Your task to perform on an android device: Open wifi settings Image 0: 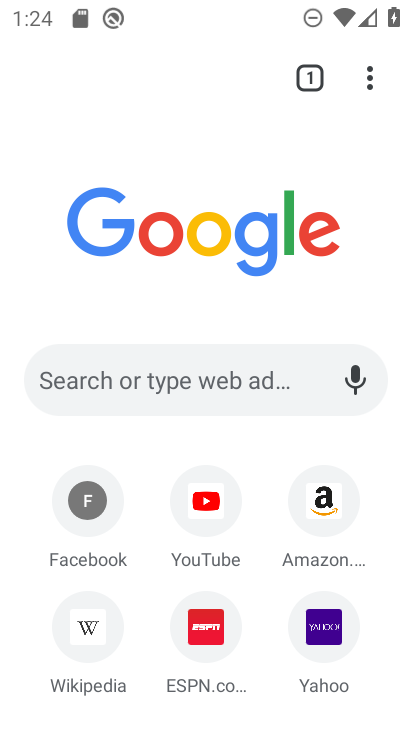
Step 0: press back button
Your task to perform on an android device: Open wifi settings Image 1: 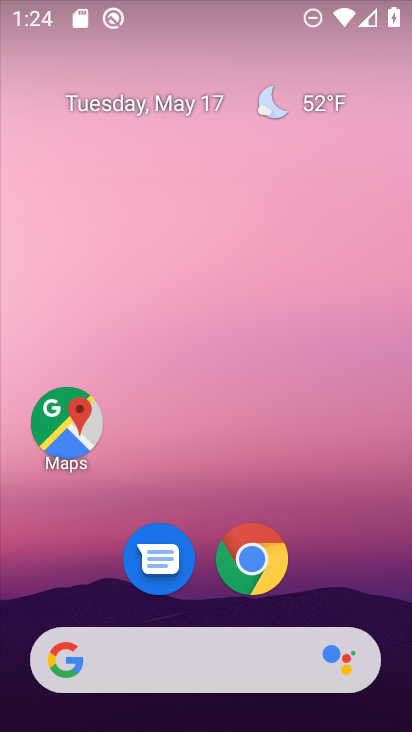
Step 1: drag from (331, 579) to (262, 168)
Your task to perform on an android device: Open wifi settings Image 2: 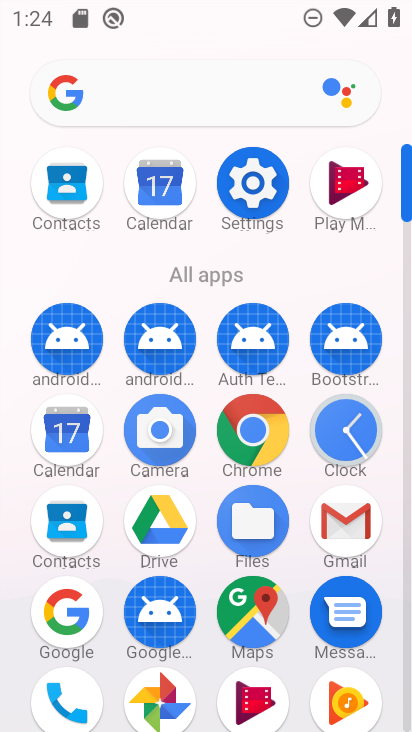
Step 2: click (253, 181)
Your task to perform on an android device: Open wifi settings Image 3: 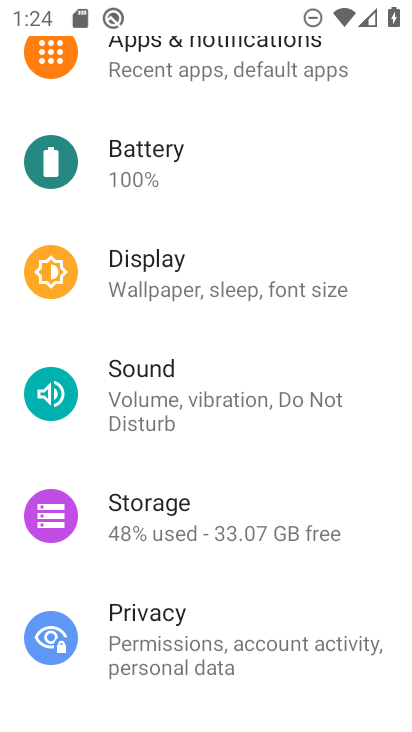
Step 3: drag from (208, 164) to (249, 261)
Your task to perform on an android device: Open wifi settings Image 4: 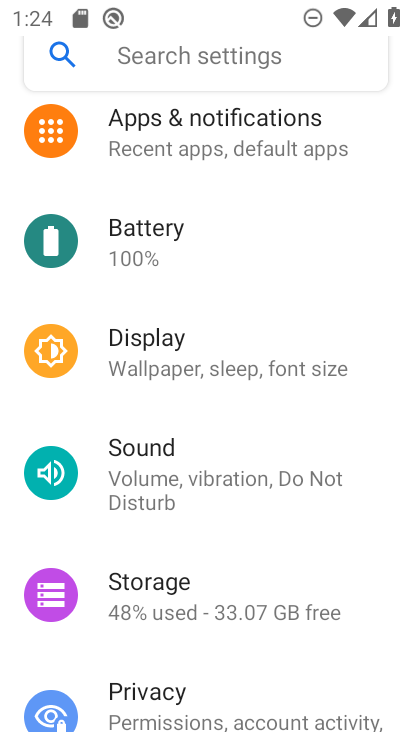
Step 4: drag from (243, 211) to (274, 350)
Your task to perform on an android device: Open wifi settings Image 5: 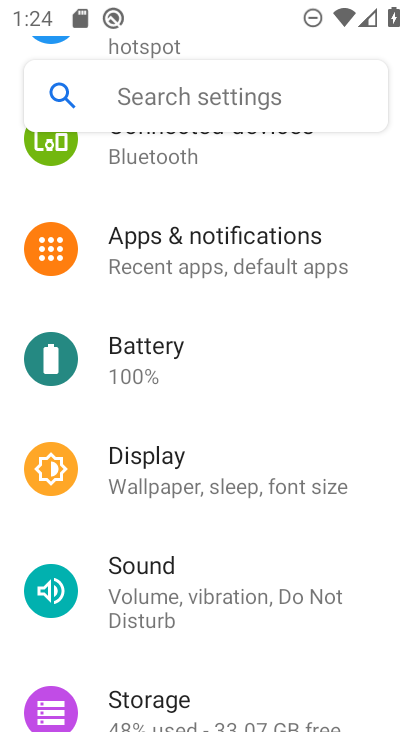
Step 5: drag from (262, 205) to (249, 380)
Your task to perform on an android device: Open wifi settings Image 6: 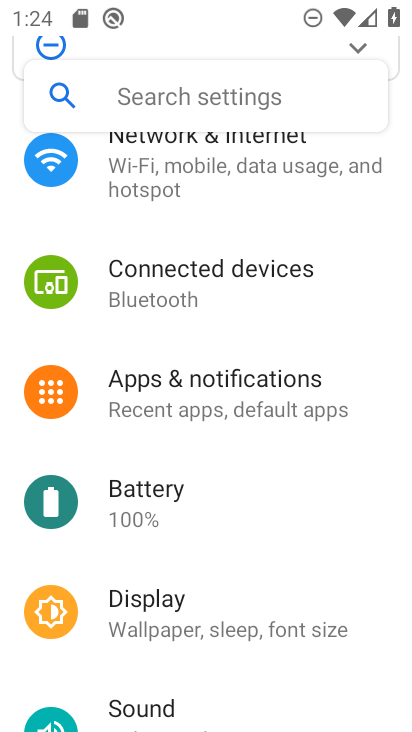
Step 6: drag from (237, 227) to (241, 388)
Your task to perform on an android device: Open wifi settings Image 7: 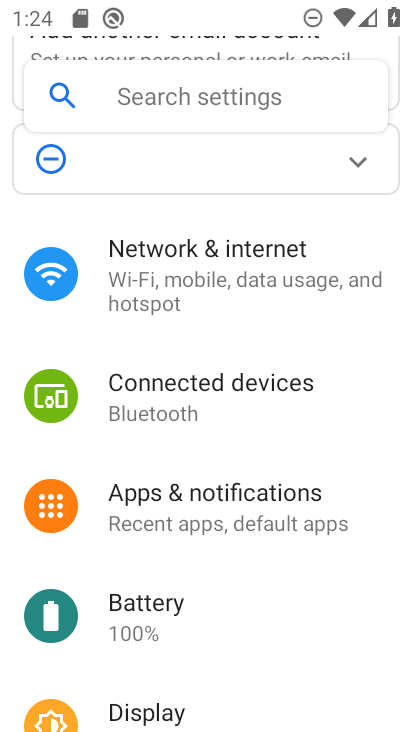
Step 7: click (218, 253)
Your task to perform on an android device: Open wifi settings Image 8: 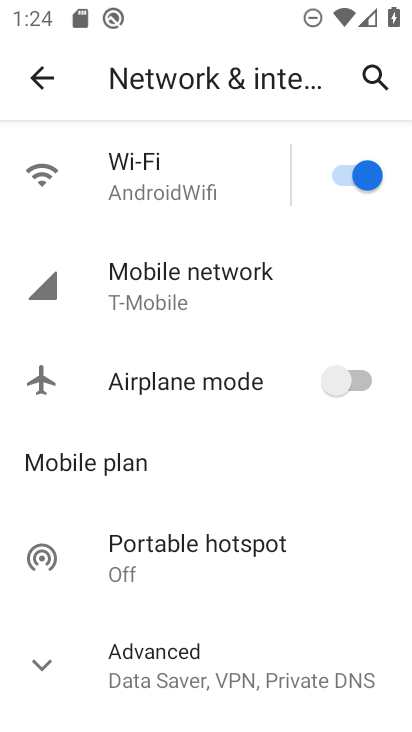
Step 8: click (134, 159)
Your task to perform on an android device: Open wifi settings Image 9: 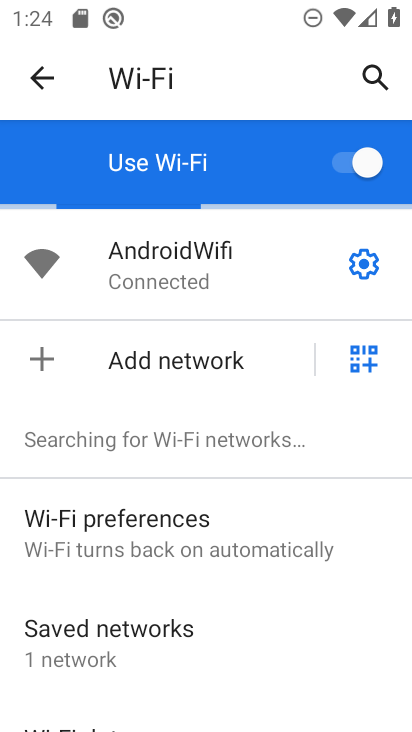
Step 9: click (364, 266)
Your task to perform on an android device: Open wifi settings Image 10: 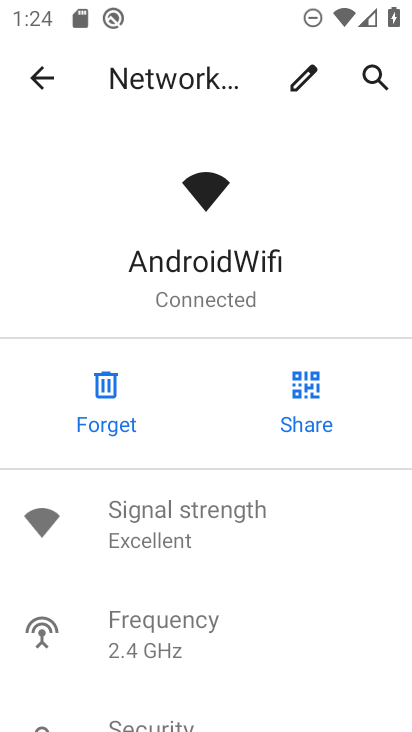
Step 10: task complete